Your task to perform on an android device: search for starred emails in the gmail app Image 0: 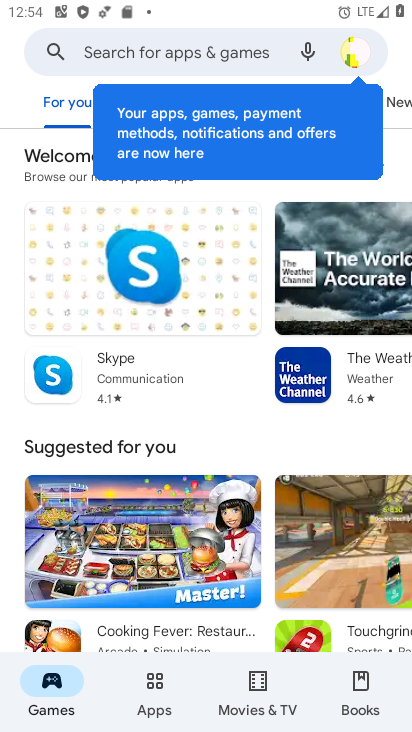
Step 0: press back button
Your task to perform on an android device: search for starred emails in the gmail app Image 1: 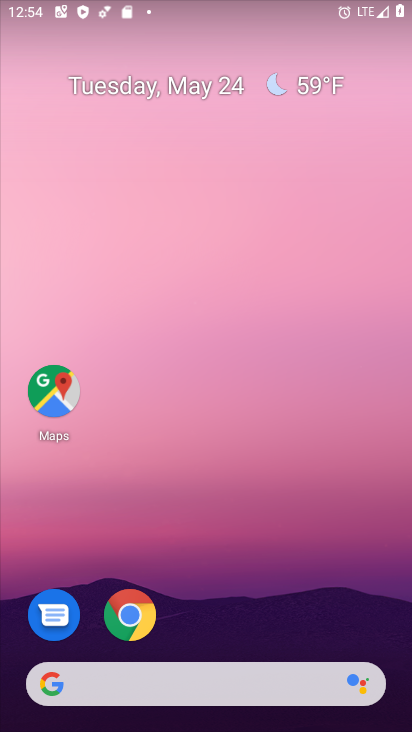
Step 1: drag from (331, 567) to (275, 37)
Your task to perform on an android device: search for starred emails in the gmail app Image 2: 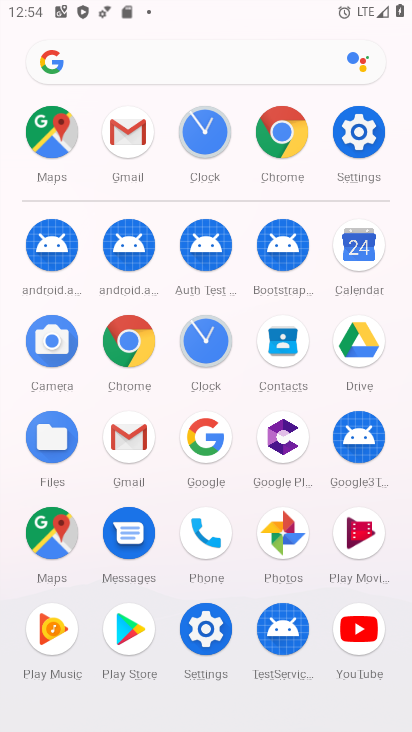
Step 2: drag from (1, 567) to (7, 195)
Your task to perform on an android device: search for starred emails in the gmail app Image 3: 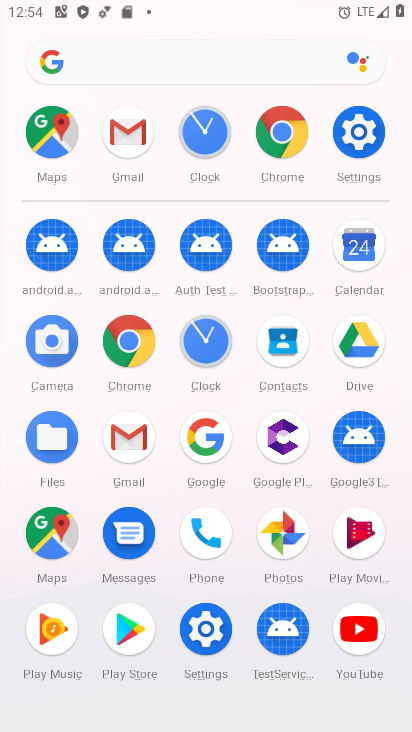
Step 3: click (126, 434)
Your task to perform on an android device: search for starred emails in the gmail app Image 4: 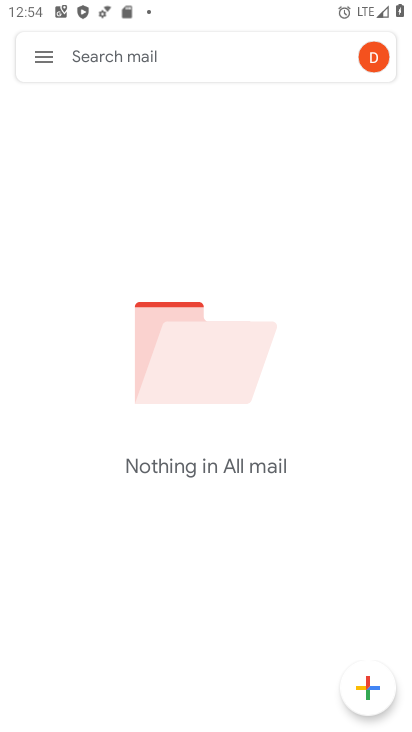
Step 4: click (45, 51)
Your task to perform on an android device: search for starred emails in the gmail app Image 5: 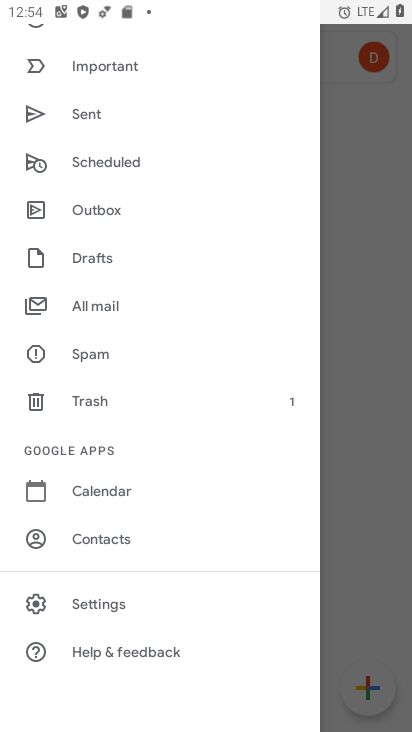
Step 5: drag from (145, 137) to (151, 431)
Your task to perform on an android device: search for starred emails in the gmail app Image 6: 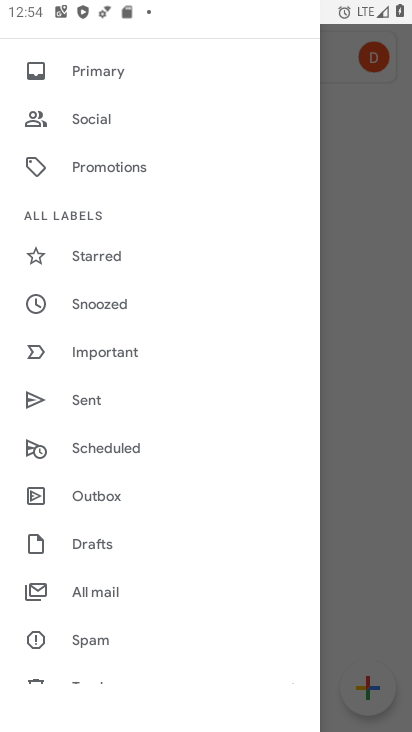
Step 6: click (106, 82)
Your task to perform on an android device: search for starred emails in the gmail app Image 7: 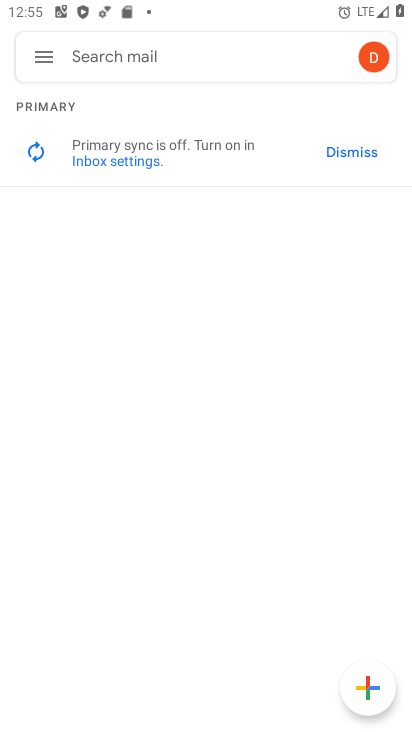
Step 7: drag from (263, 191) to (263, 590)
Your task to perform on an android device: search for starred emails in the gmail app Image 8: 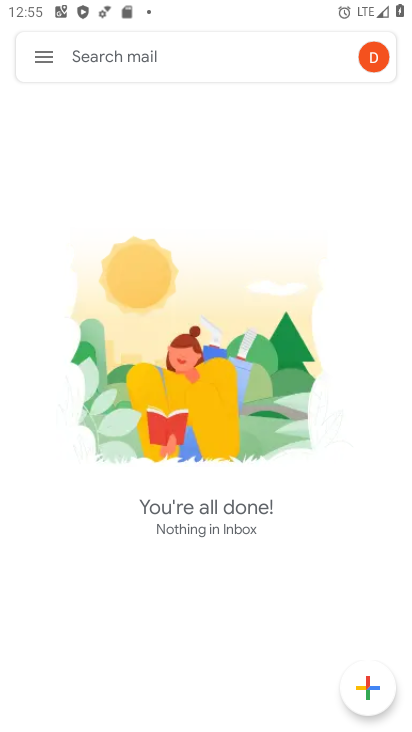
Step 8: drag from (274, 251) to (261, 645)
Your task to perform on an android device: search for starred emails in the gmail app Image 9: 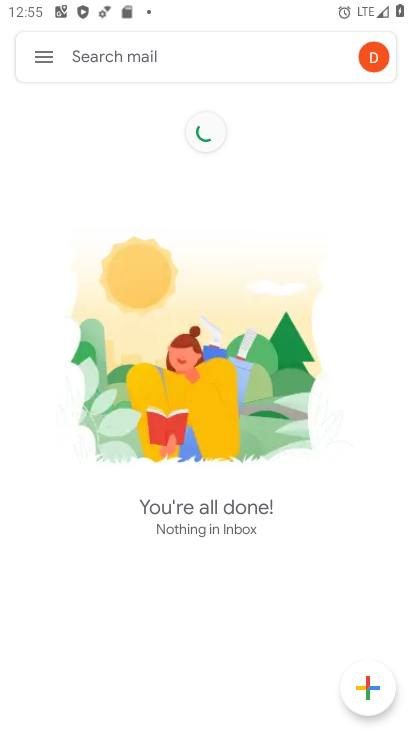
Step 9: click (47, 58)
Your task to perform on an android device: search for starred emails in the gmail app Image 10: 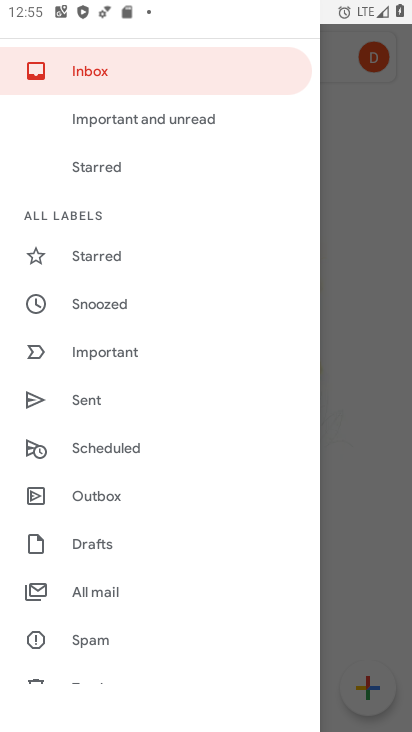
Step 10: click (110, 254)
Your task to perform on an android device: search for starred emails in the gmail app Image 11: 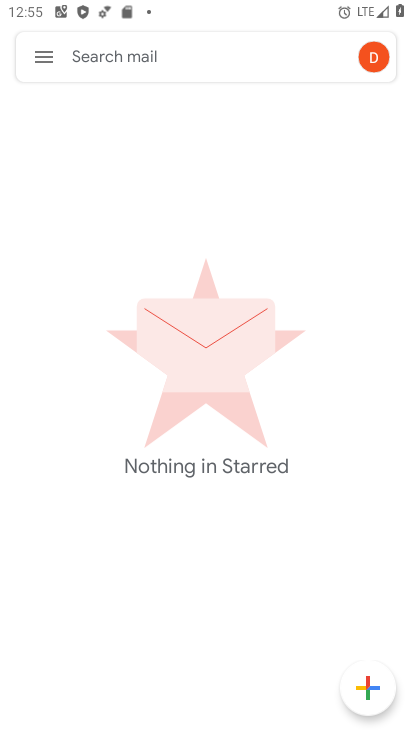
Step 11: task complete